Your task to perform on an android device: What is the news today? Image 0: 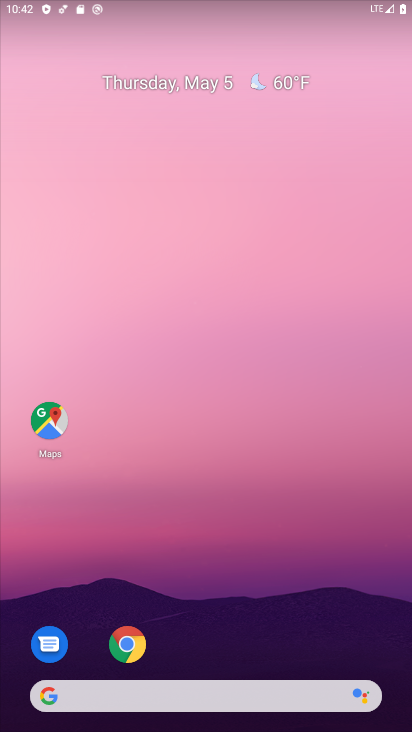
Step 0: drag from (375, 598) to (346, 67)
Your task to perform on an android device: What is the news today? Image 1: 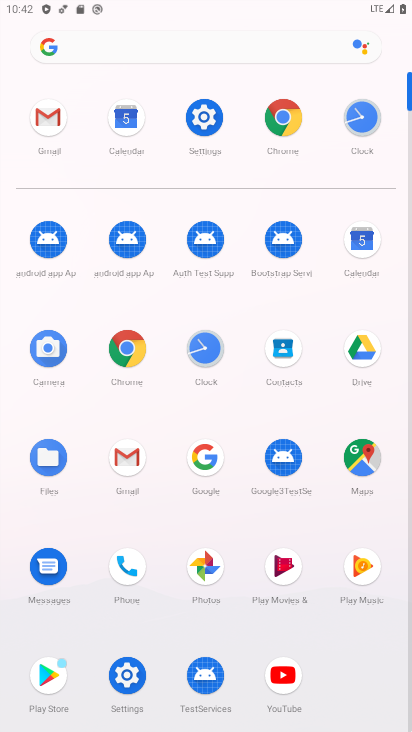
Step 1: click (121, 358)
Your task to perform on an android device: What is the news today? Image 2: 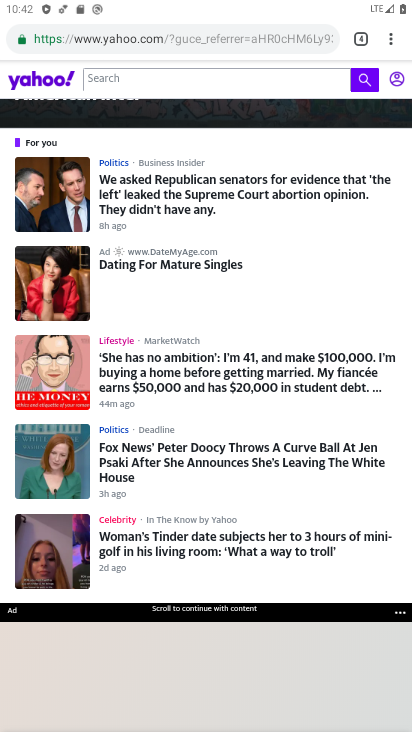
Step 2: click (216, 36)
Your task to perform on an android device: What is the news today? Image 3: 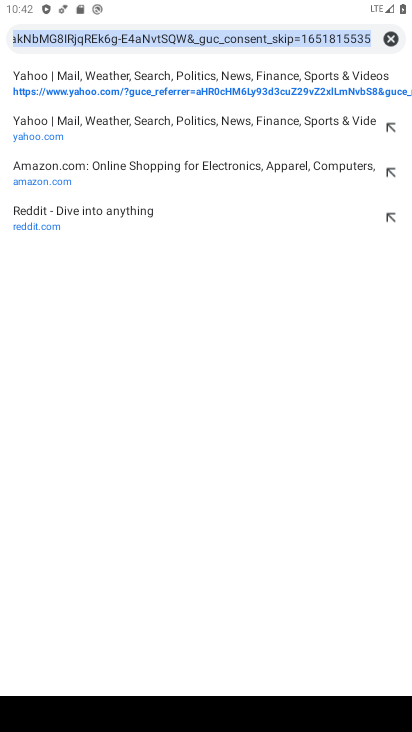
Step 3: click (394, 43)
Your task to perform on an android device: What is the news today? Image 4: 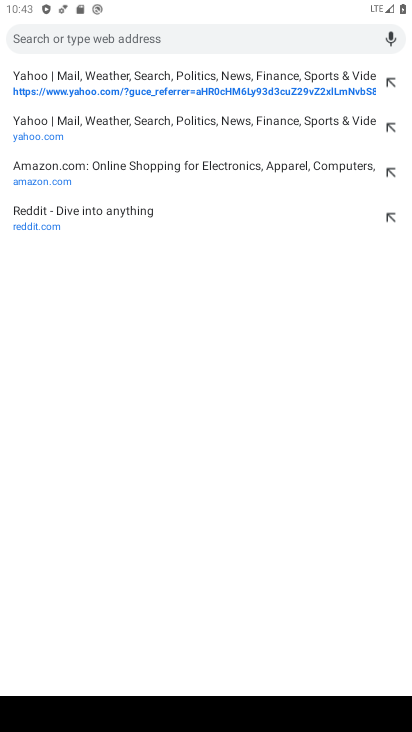
Step 4: type "what is the news today"
Your task to perform on an android device: What is the news today? Image 5: 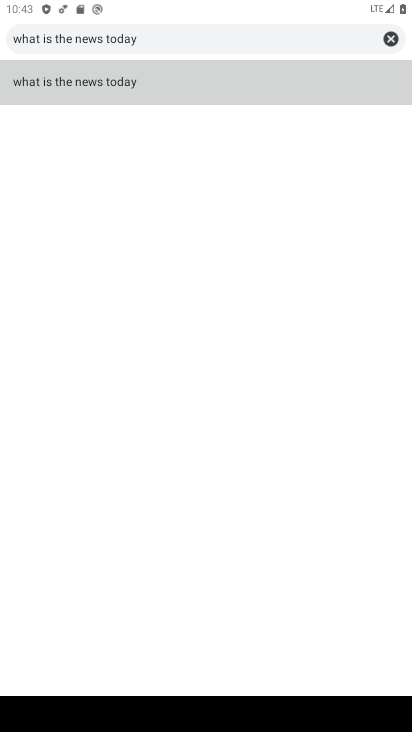
Step 5: click (25, 79)
Your task to perform on an android device: What is the news today? Image 6: 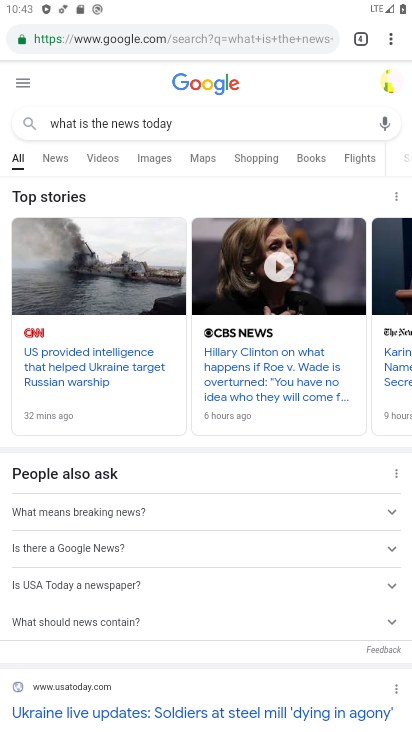
Step 6: drag from (183, 642) to (207, 393)
Your task to perform on an android device: What is the news today? Image 7: 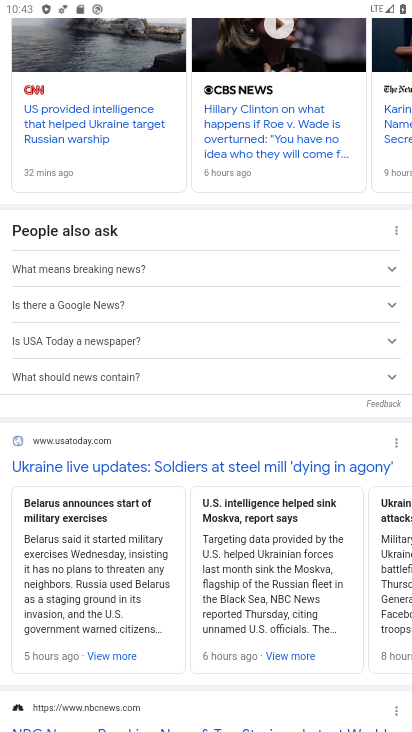
Step 7: click (85, 465)
Your task to perform on an android device: What is the news today? Image 8: 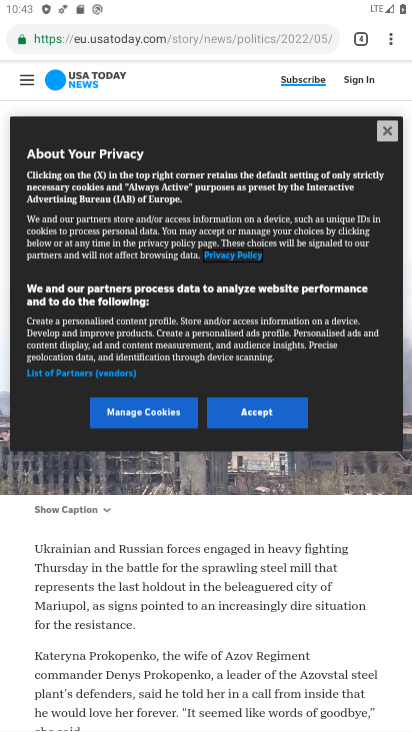
Step 8: task complete